Your task to perform on an android device: Open Yahoo.com Image 0: 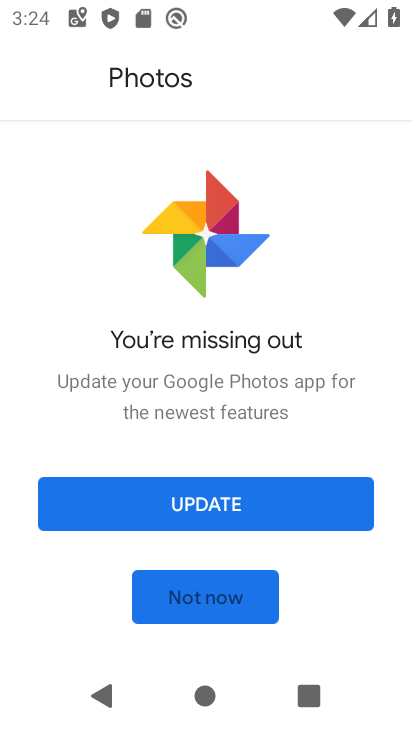
Step 0: press back button
Your task to perform on an android device: Open Yahoo.com Image 1: 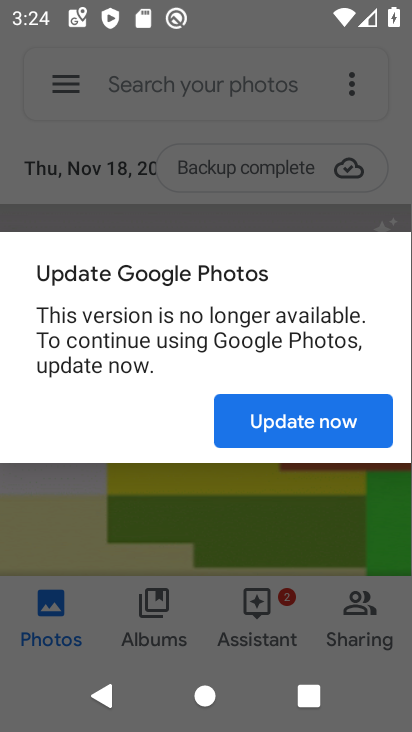
Step 1: press home button
Your task to perform on an android device: Open Yahoo.com Image 2: 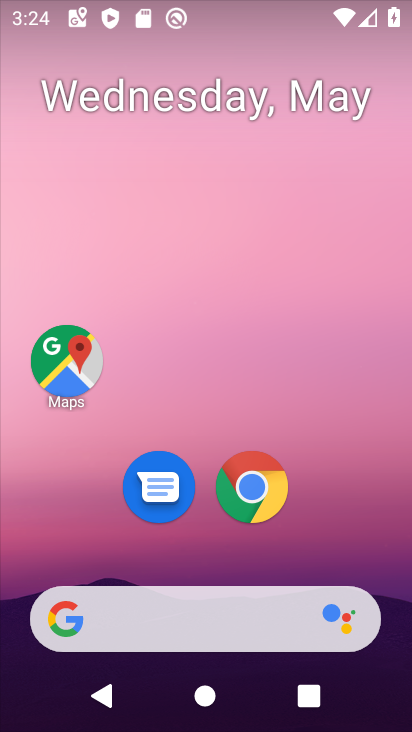
Step 2: drag from (375, 528) to (276, 8)
Your task to perform on an android device: Open Yahoo.com Image 3: 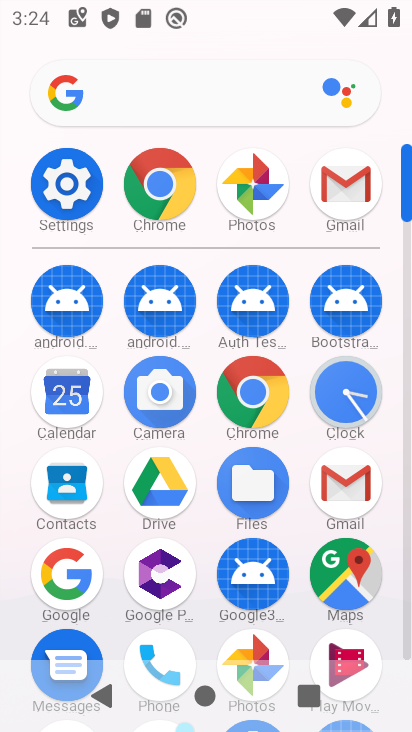
Step 3: click (253, 386)
Your task to perform on an android device: Open Yahoo.com Image 4: 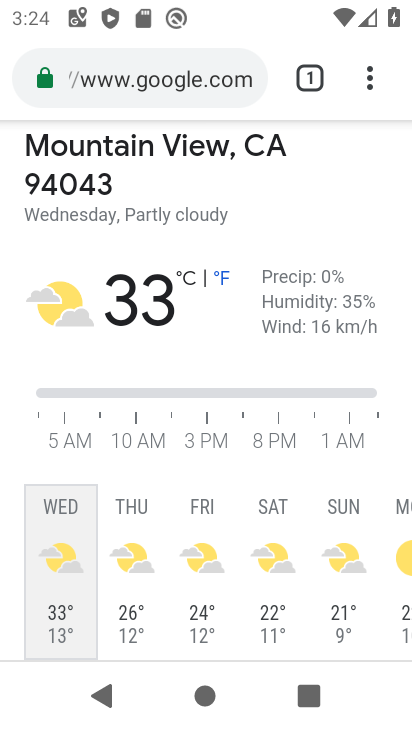
Step 4: click (185, 67)
Your task to perform on an android device: Open Yahoo.com Image 5: 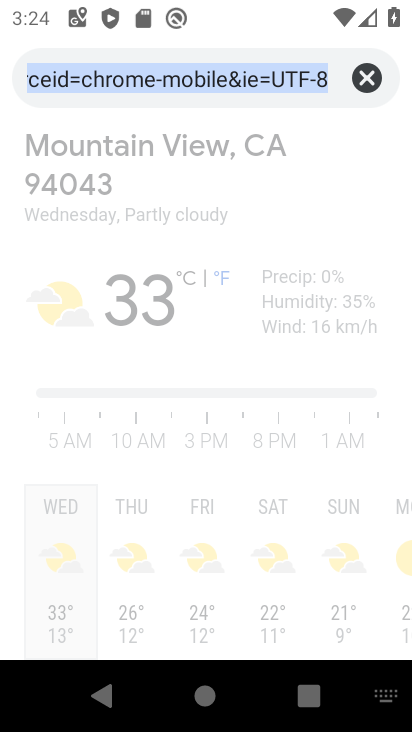
Step 5: click (368, 74)
Your task to perform on an android device: Open Yahoo.com Image 6: 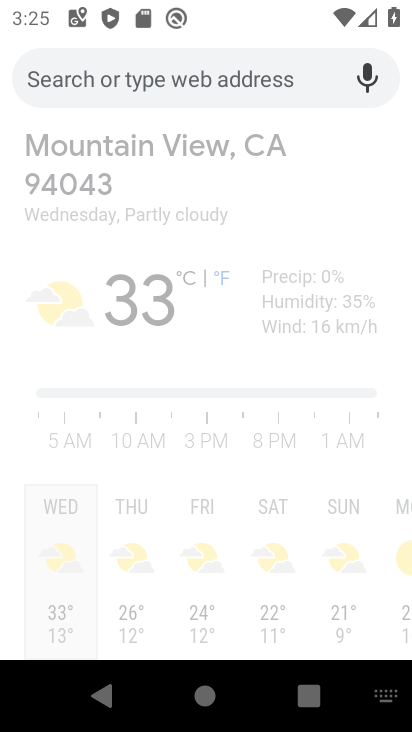
Step 6: type "Yahoo.com"
Your task to perform on an android device: Open Yahoo.com Image 7: 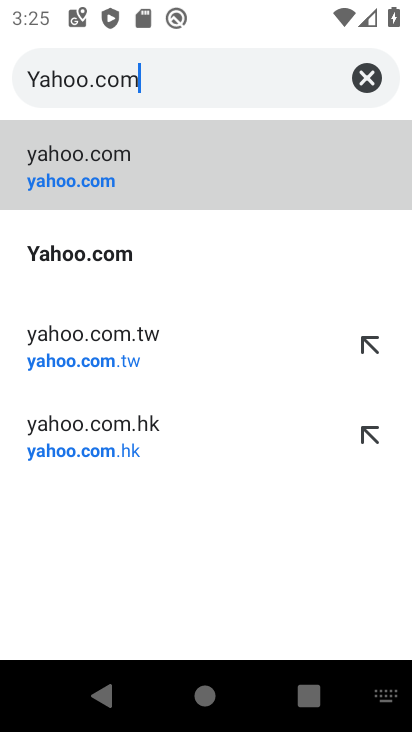
Step 7: type ""
Your task to perform on an android device: Open Yahoo.com Image 8: 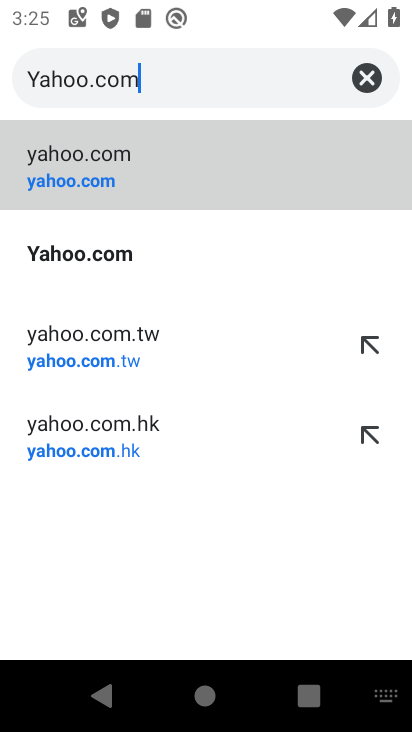
Step 8: click (104, 173)
Your task to perform on an android device: Open Yahoo.com Image 9: 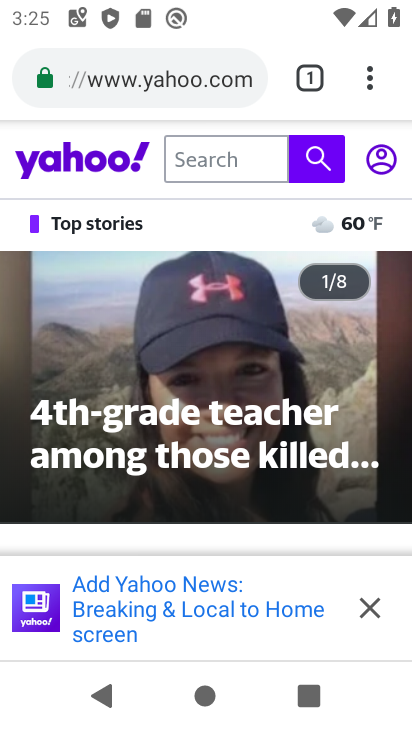
Step 9: task complete